Your task to perform on an android device: Do I have any events this weekend? Image 0: 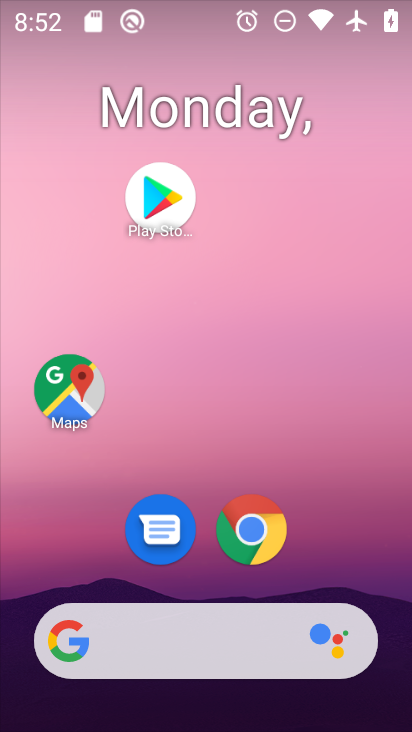
Step 0: drag from (326, 567) to (260, 283)
Your task to perform on an android device: Do I have any events this weekend? Image 1: 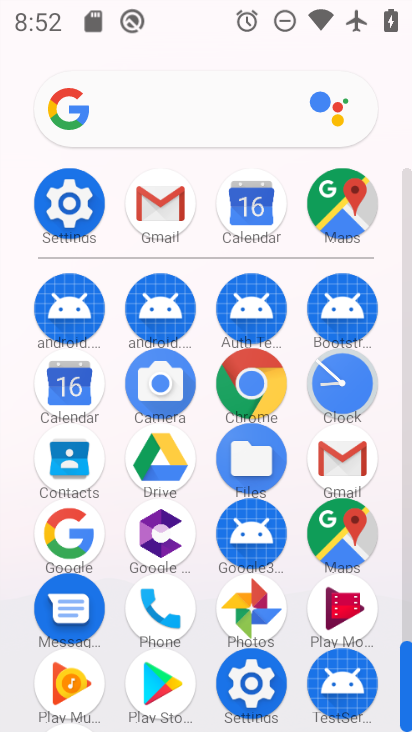
Step 1: click (69, 384)
Your task to perform on an android device: Do I have any events this weekend? Image 2: 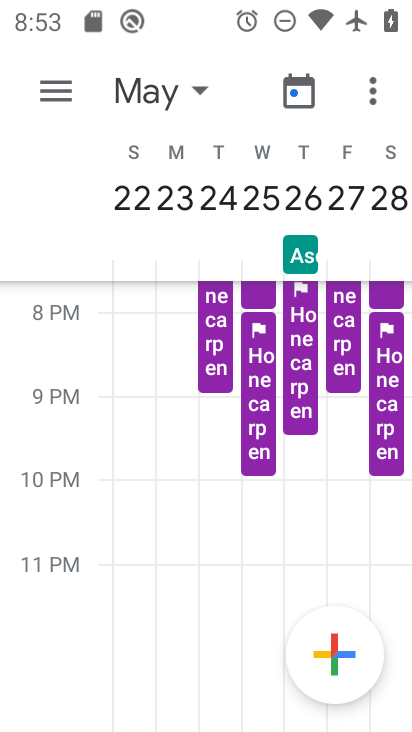
Step 2: click (196, 88)
Your task to perform on an android device: Do I have any events this weekend? Image 3: 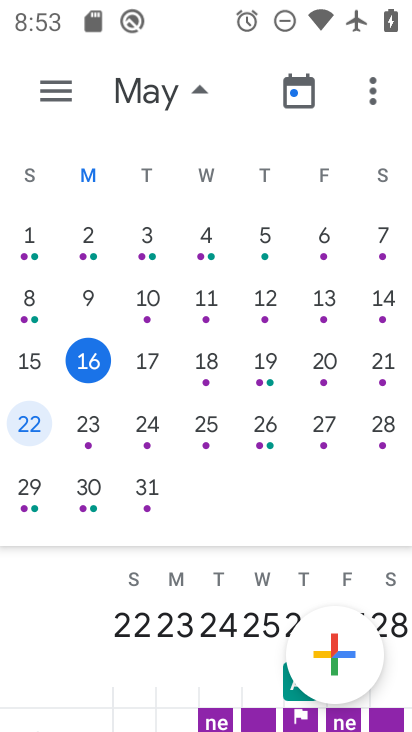
Step 3: click (143, 297)
Your task to perform on an android device: Do I have any events this weekend? Image 4: 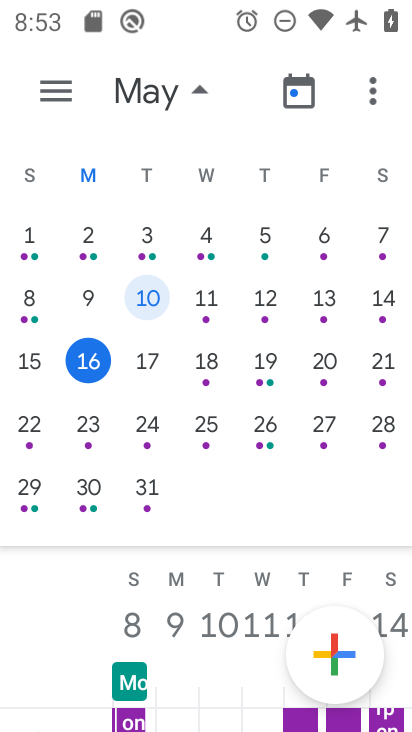
Step 4: drag from (237, 560) to (178, 241)
Your task to perform on an android device: Do I have any events this weekend? Image 5: 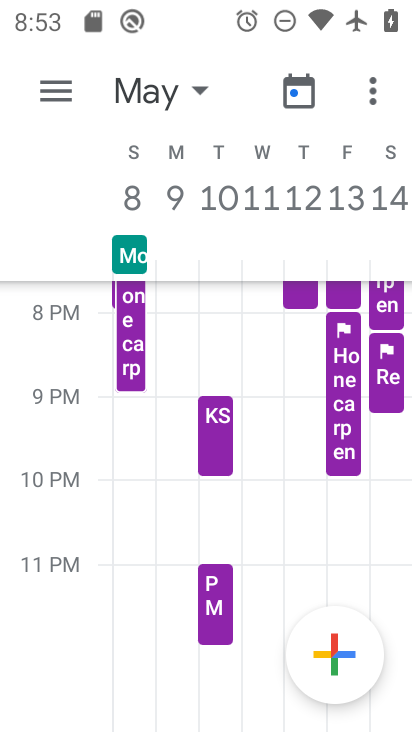
Step 5: drag from (269, 494) to (235, 238)
Your task to perform on an android device: Do I have any events this weekend? Image 6: 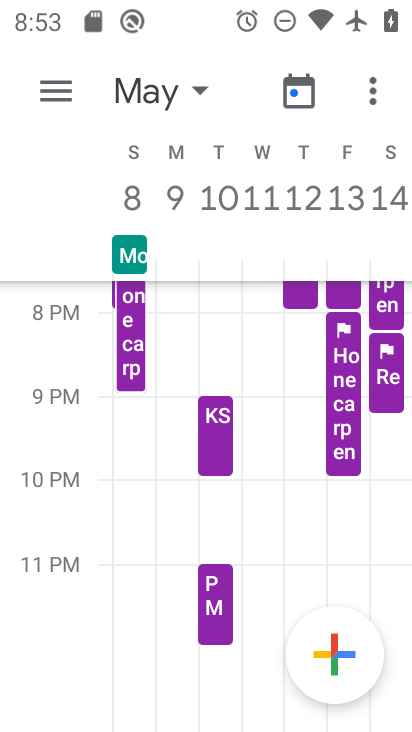
Step 6: drag from (269, 515) to (204, 201)
Your task to perform on an android device: Do I have any events this weekend? Image 7: 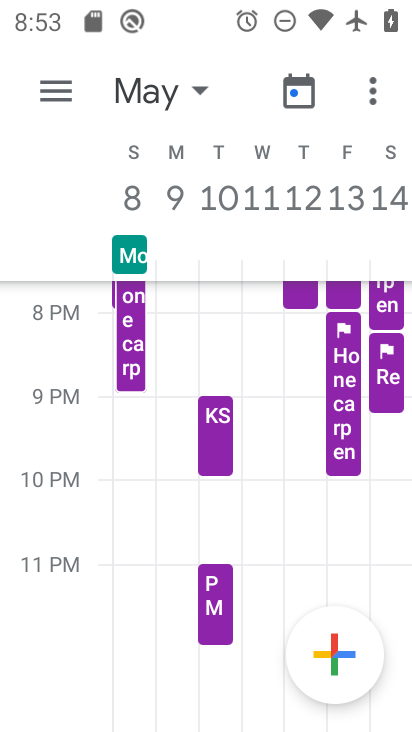
Step 7: click (200, 88)
Your task to perform on an android device: Do I have any events this weekend? Image 8: 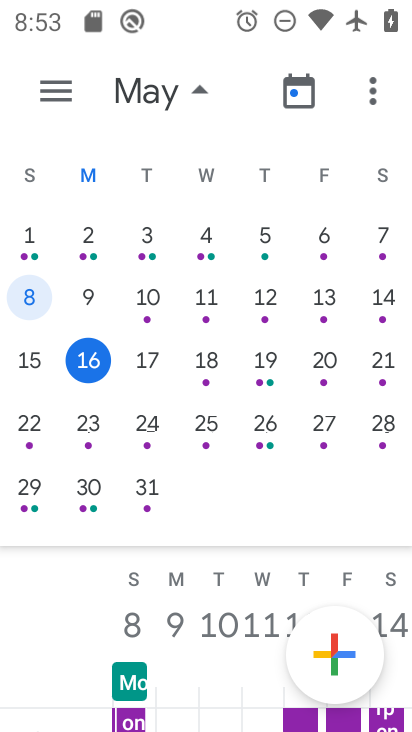
Step 8: click (143, 360)
Your task to perform on an android device: Do I have any events this weekend? Image 9: 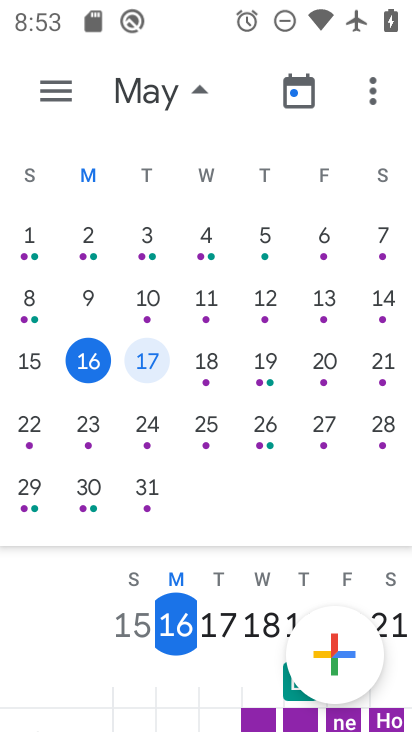
Step 9: task complete